Your task to perform on an android device: Go to Maps Image 0: 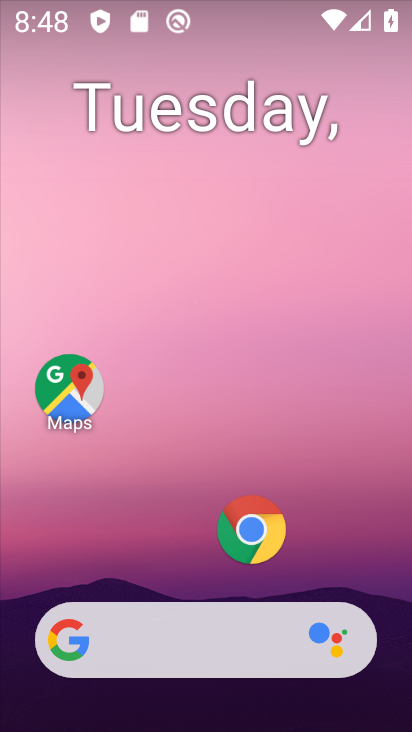
Step 0: press home button
Your task to perform on an android device: Go to Maps Image 1: 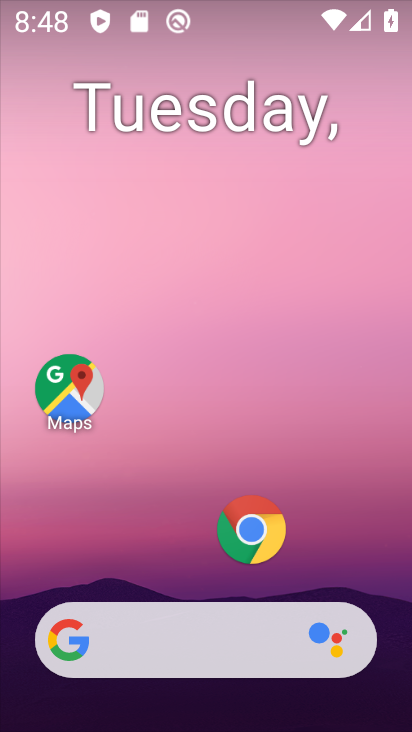
Step 1: drag from (207, 575) to (235, 73)
Your task to perform on an android device: Go to Maps Image 2: 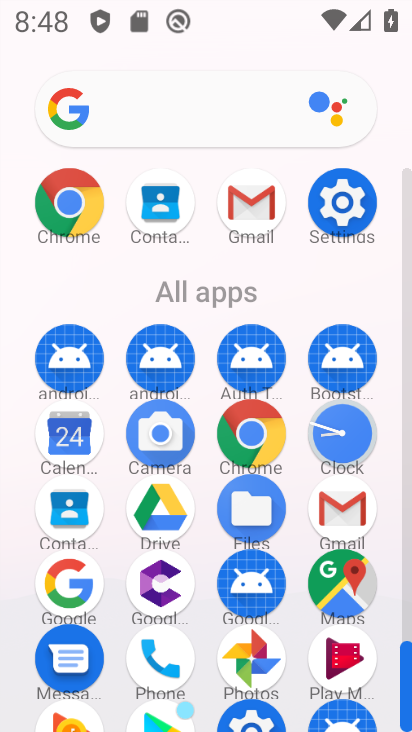
Step 2: click (351, 588)
Your task to perform on an android device: Go to Maps Image 3: 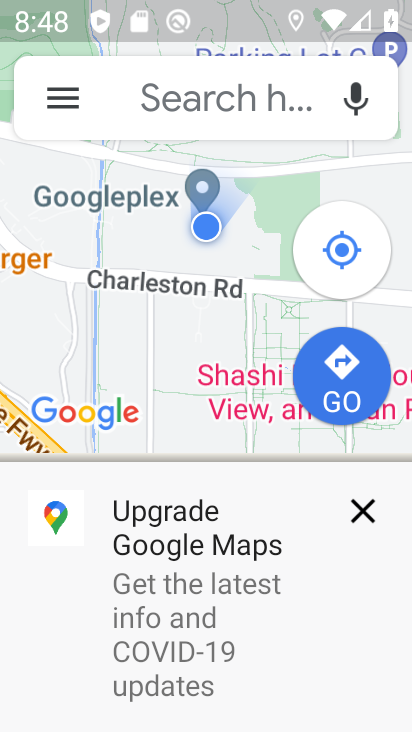
Step 3: click (362, 515)
Your task to perform on an android device: Go to Maps Image 4: 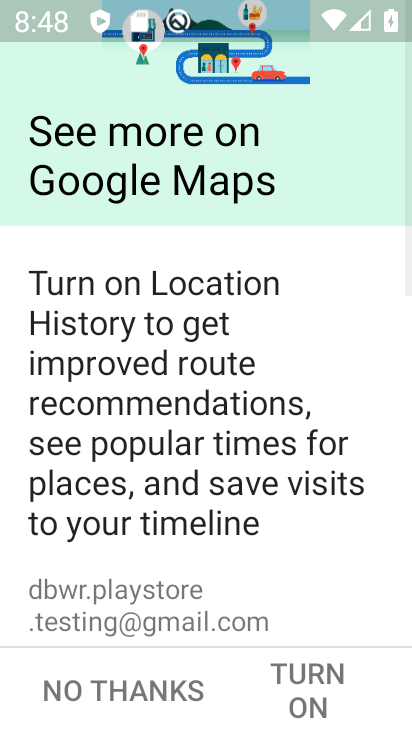
Step 4: click (307, 683)
Your task to perform on an android device: Go to Maps Image 5: 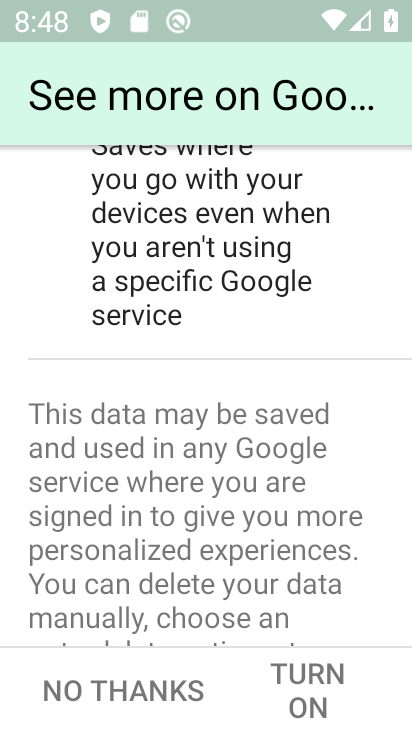
Step 5: click (307, 683)
Your task to perform on an android device: Go to Maps Image 6: 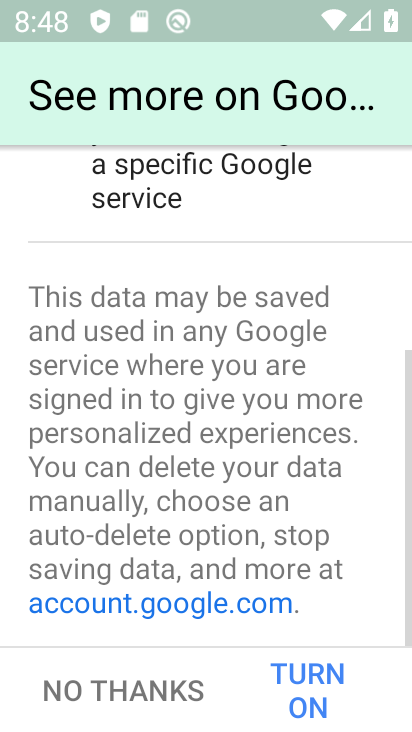
Step 6: click (307, 683)
Your task to perform on an android device: Go to Maps Image 7: 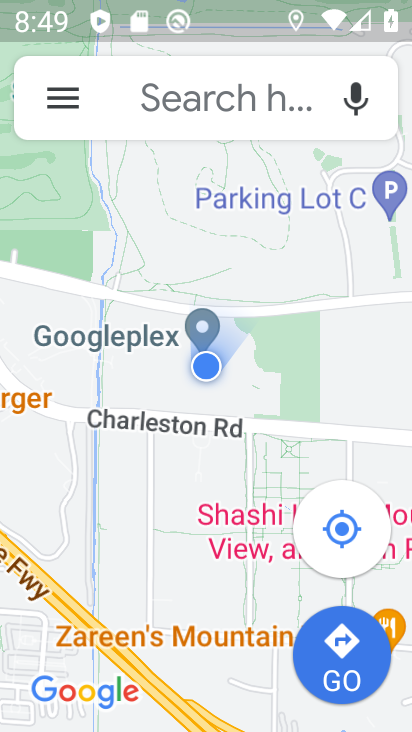
Step 7: task complete